Your task to perform on an android device: Find coffee shops on Maps Image 0: 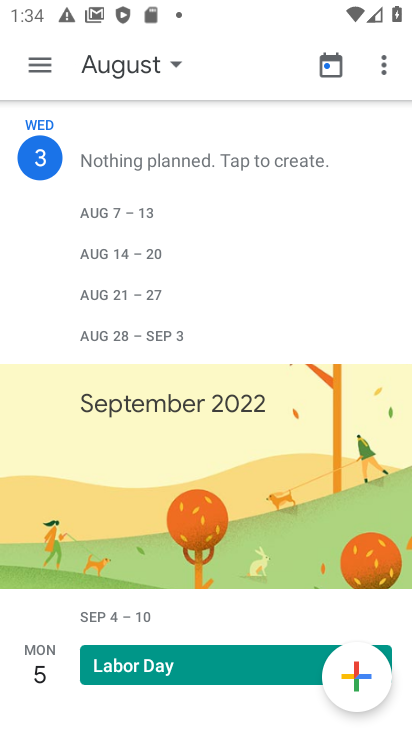
Step 0: press home button
Your task to perform on an android device: Find coffee shops on Maps Image 1: 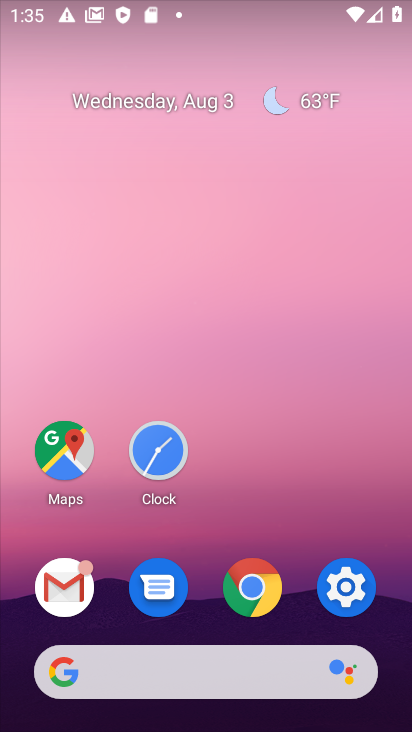
Step 1: click (61, 474)
Your task to perform on an android device: Find coffee shops on Maps Image 2: 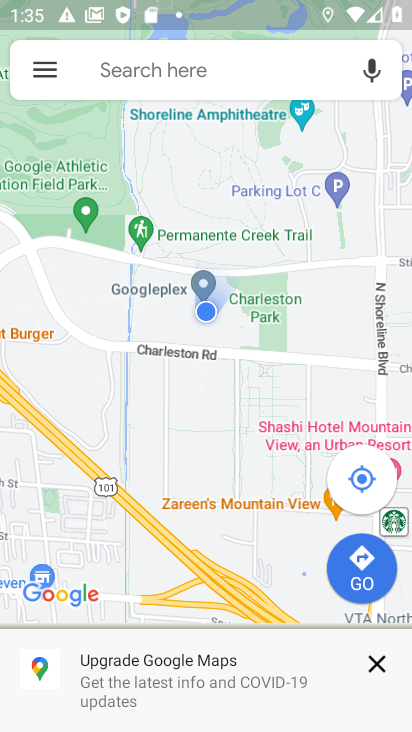
Step 2: click (145, 83)
Your task to perform on an android device: Find coffee shops on Maps Image 3: 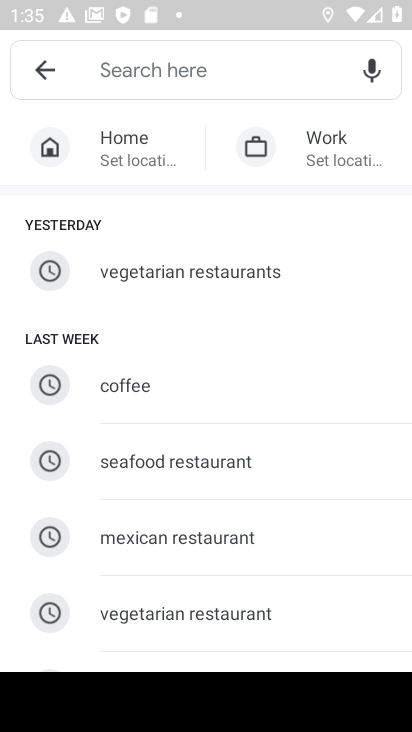
Step 3: click (150, 381)
Your task to perform on an android device: Find coffee shops on Maps Image 4: 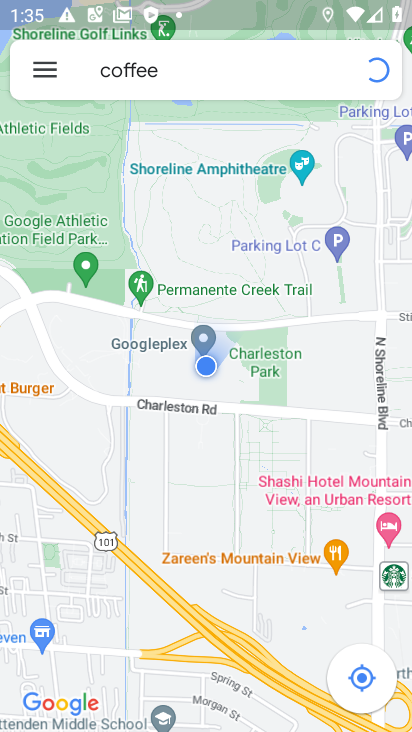
Step 4: click (126, 391)
Your task to perform on an android device: Find coffee shops on Maps Image 5: 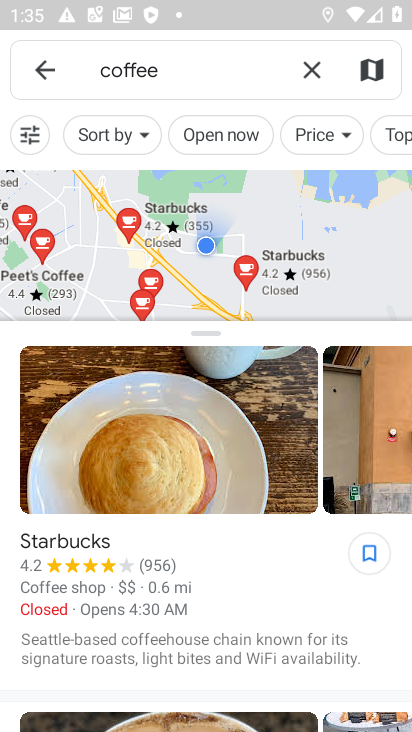
Step 5: task complete